Your task to perform on an android device: open the mobile data screen to see how much data has been used Image 0: 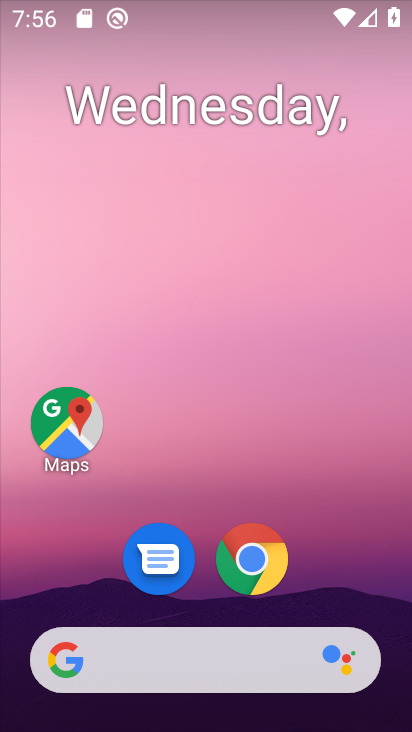
Step 0: drag from (346, 592) to (351, 120)
Your task to perform on an android device: open the mobile data screen to see how much data has been used Image 1: 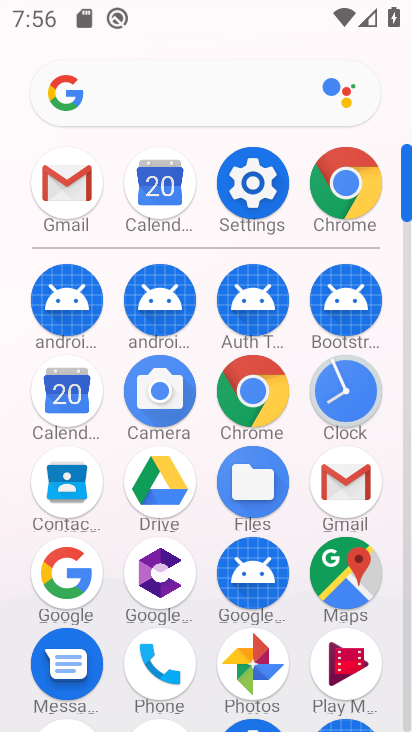
Step 1: click (271, 193)
Your task to perform on an android device: open the mobile data screen to see how much data has been used Image 2: 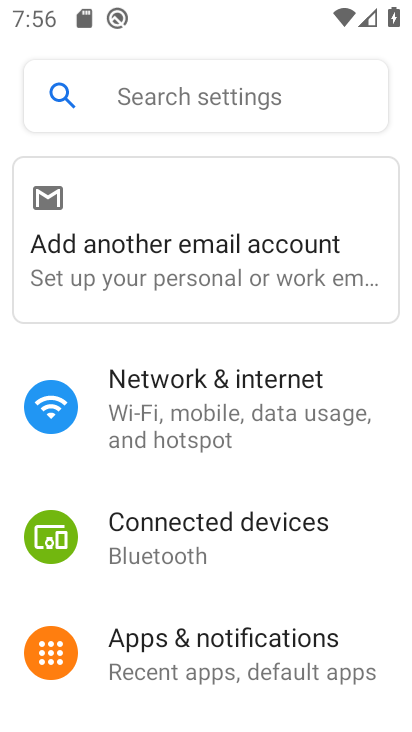
Step 2: click (256, 418)
Your task to perform on an android device: open the mobile data screen to see how much data has been used Image 3: 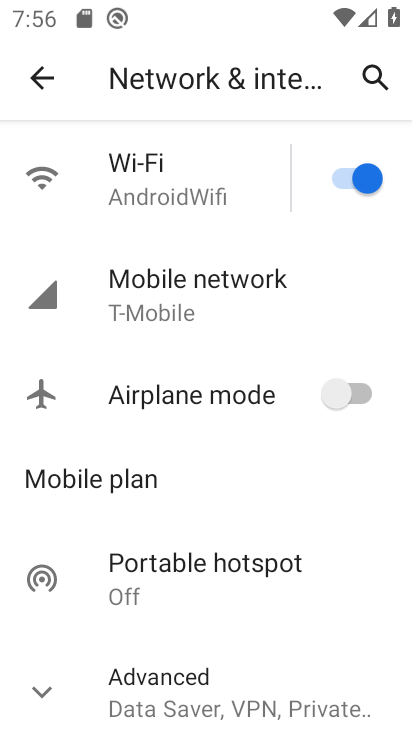
Step 3: click (233, 285)
Your task to perform on an android device: open the mobile data screen to see how much data has been used Image 4: 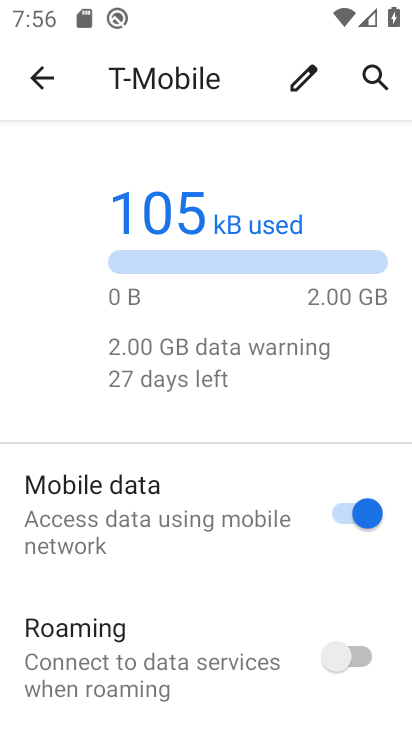
Step 4: drag from (167, 589) to (217, 331)
Your task to perform on an android device: open the mobile data screen to see how much data has been used Image 5: 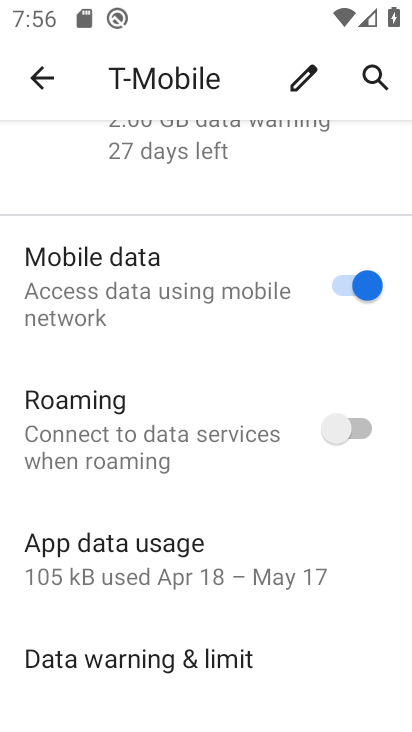
Step 5: click (173, 570)
Your task to perform on an android device: open the mobile data screen to see how much data has been used Image 6: 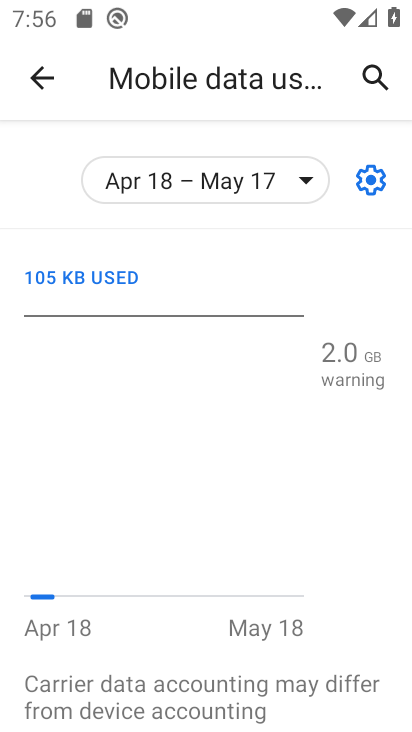
Step 6: task complete